Your task to perform on an android device: toggle translation in the chrome app Image 0: 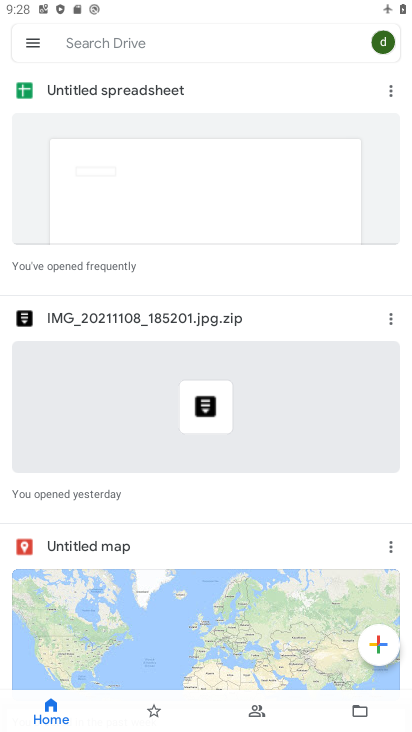
Step 0: press home button
Your task to perform on an android device: toggle translation in the chrome app Image 1: 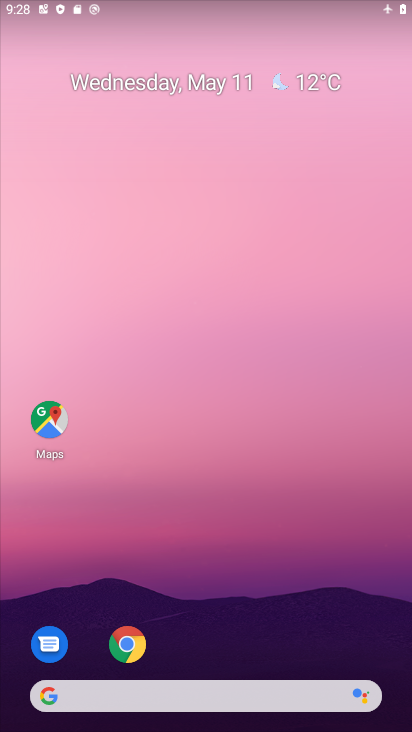
Step 1: click (133, 650)
Your task to perform on an android device: toggle translation in the chrome app Image 2: 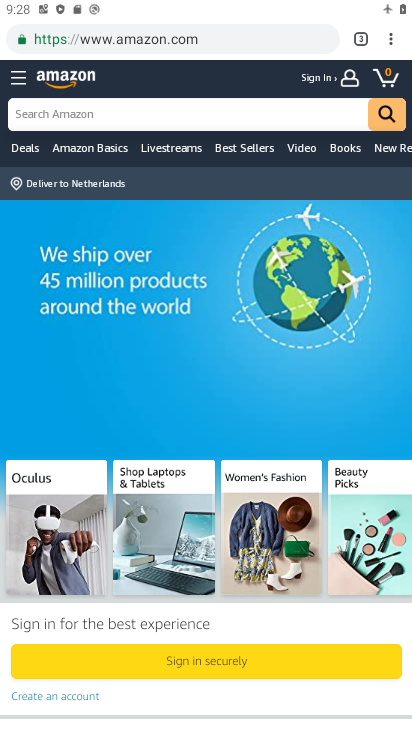
Step 2: click (389, 44)
Your task to perform on an android device: toggle translation in the chrome app Image 3: 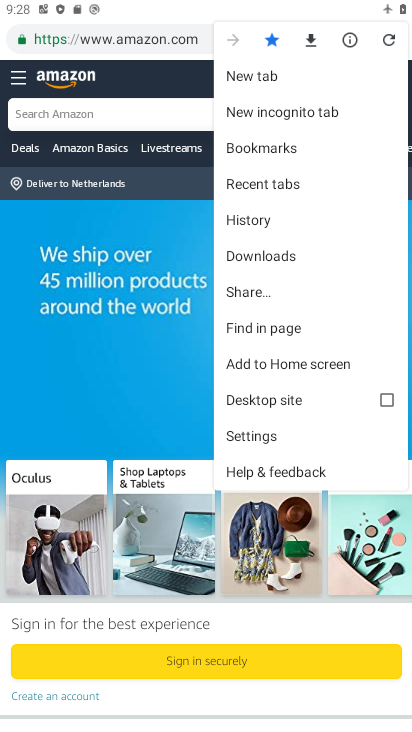
Step 3: click (251, 435)
Your task to perform on an android device: toggle translation in the chrome app Image 4: 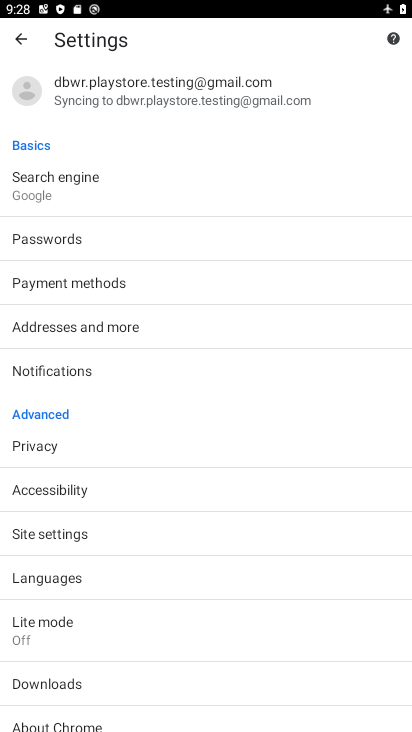
Step 4: click (69, 577)
Your task to perform on an android device: toggle translation in the chrome app Image 5: 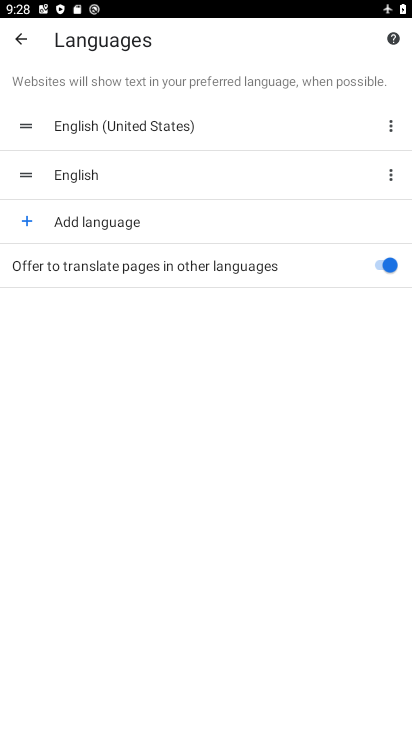
Step 5: click (388, 265)
Your task to perform on an android device: toggle translation in the chrome app Image 6: 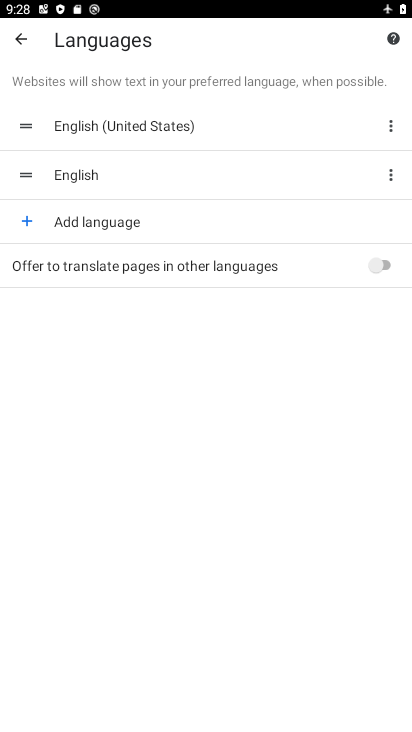
Step 6: task complete